Your task to perform on an android device: What's the weather today? Image 0: 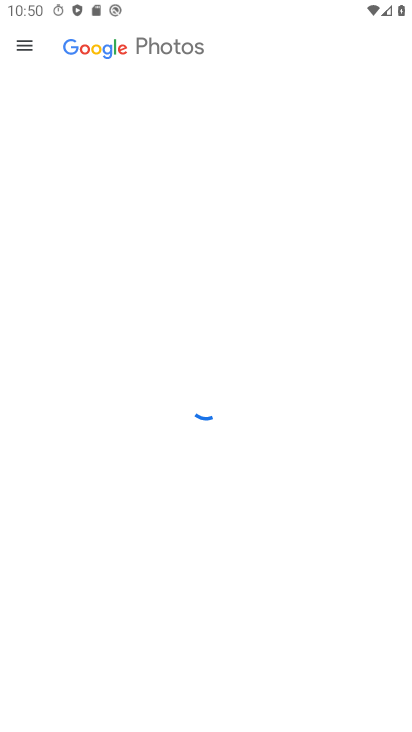
Step 0: press home button
Your task to perform on an android device: What's the weather today? Image 1: 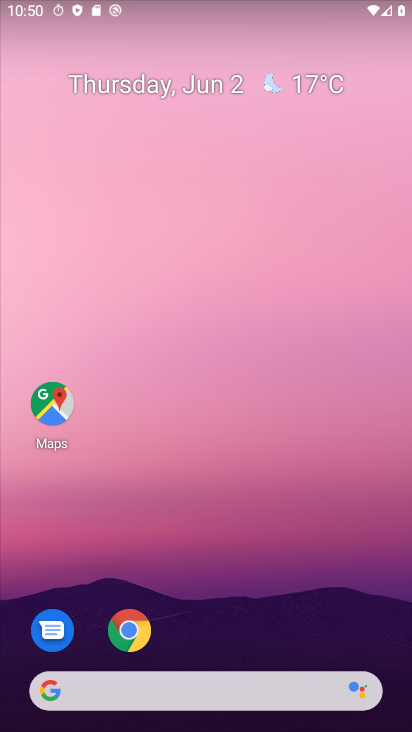
Step 1: click (274, 80)
Your task to perform on an android device: What's the weather today? Image 2: 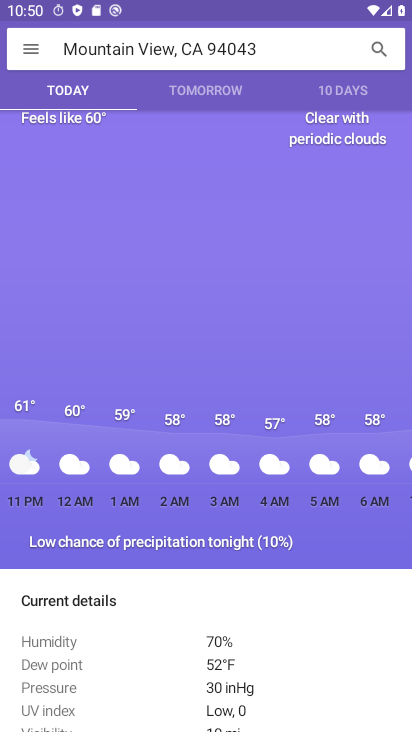
Step 2: task complete